Your task to perform on an android device: Search for the best lawnmowers on Lowes.com Image 0: 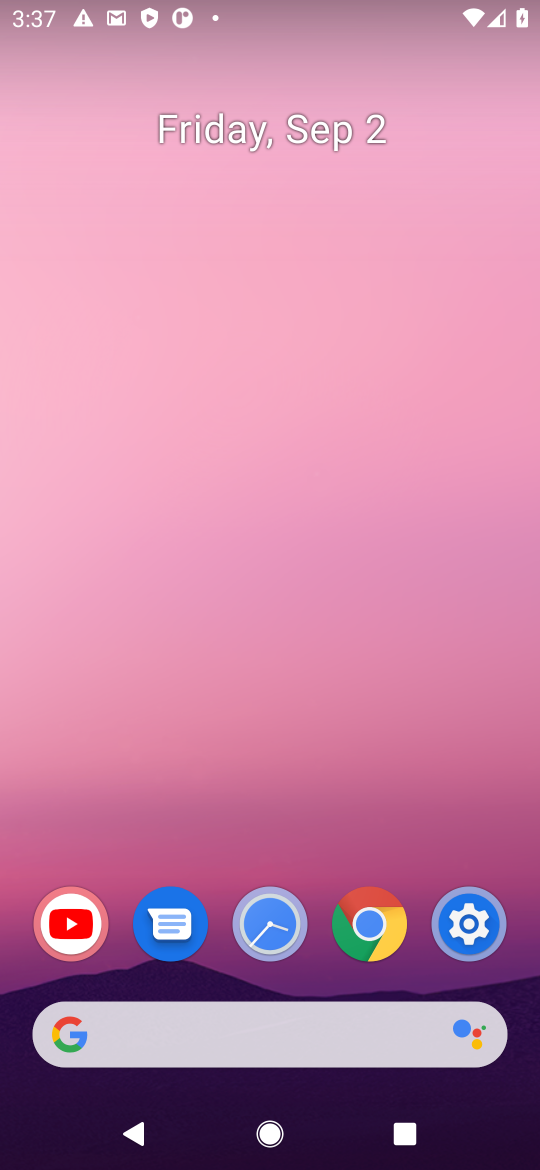
Step 0: press home button
Your task to perform on an android device: Search for the best lawnmowers on Lowes.com Image 1: 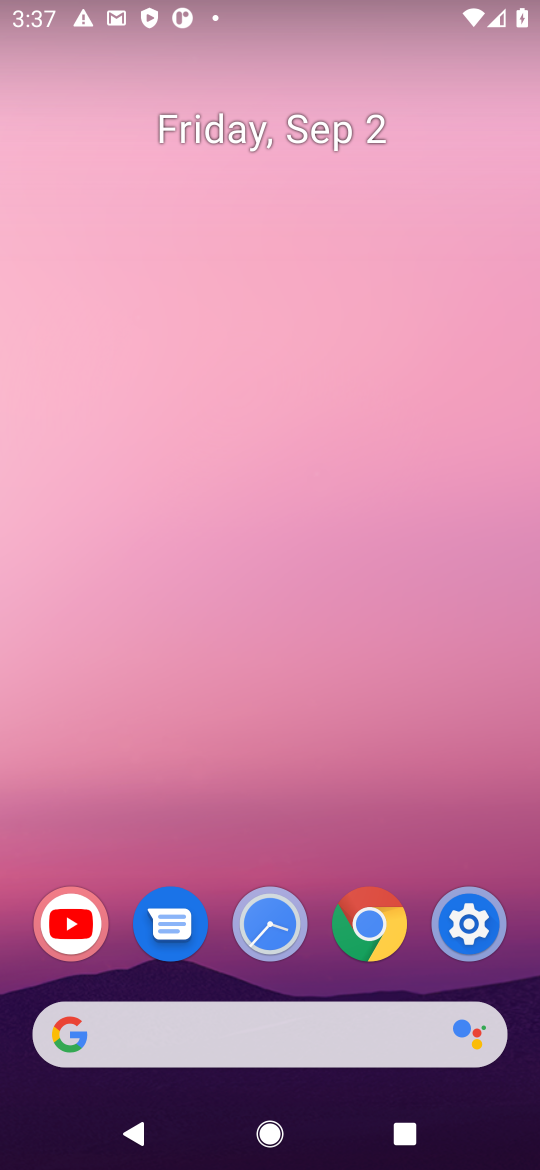
Step 1: click (399, 1020)
Your task to perform on an android device: Search for the best lawnmowers on Lowes.com Image 2: 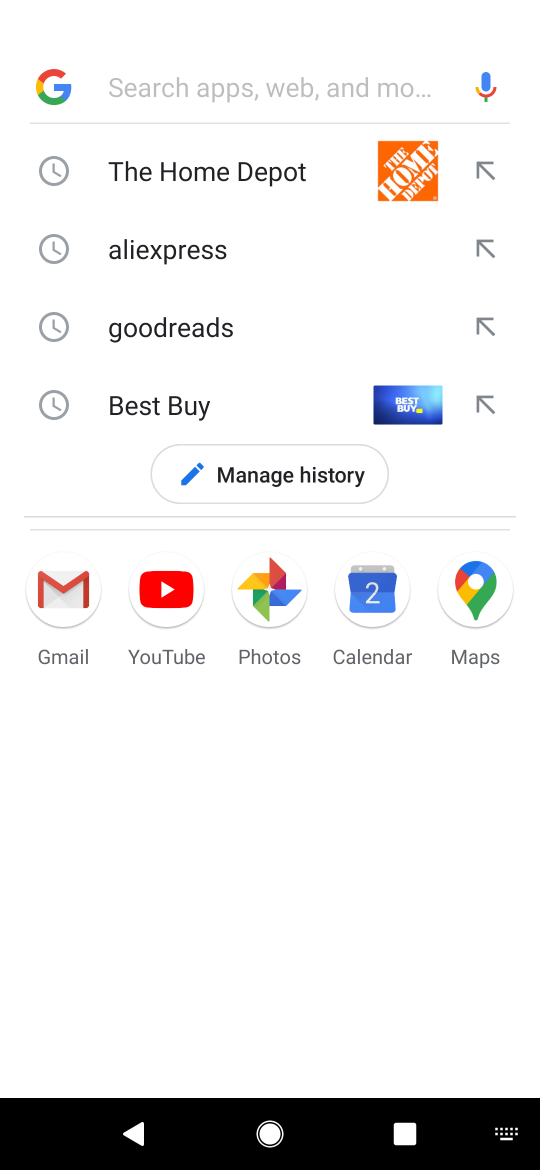
Step 2: press enter
Your task to perform on an android device: Search for the best lawnmowers on Lowes.com Image 3: 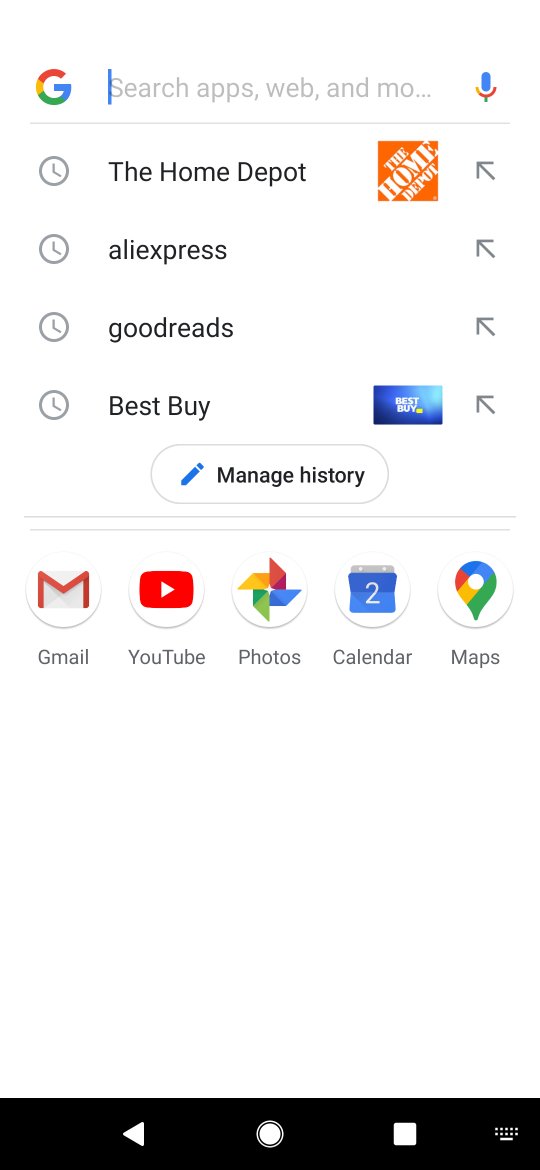
Step 3: type "lowes.com"
Your task to perform on an android device: Search for the best lawnmowers on Lowes.com Image 4: 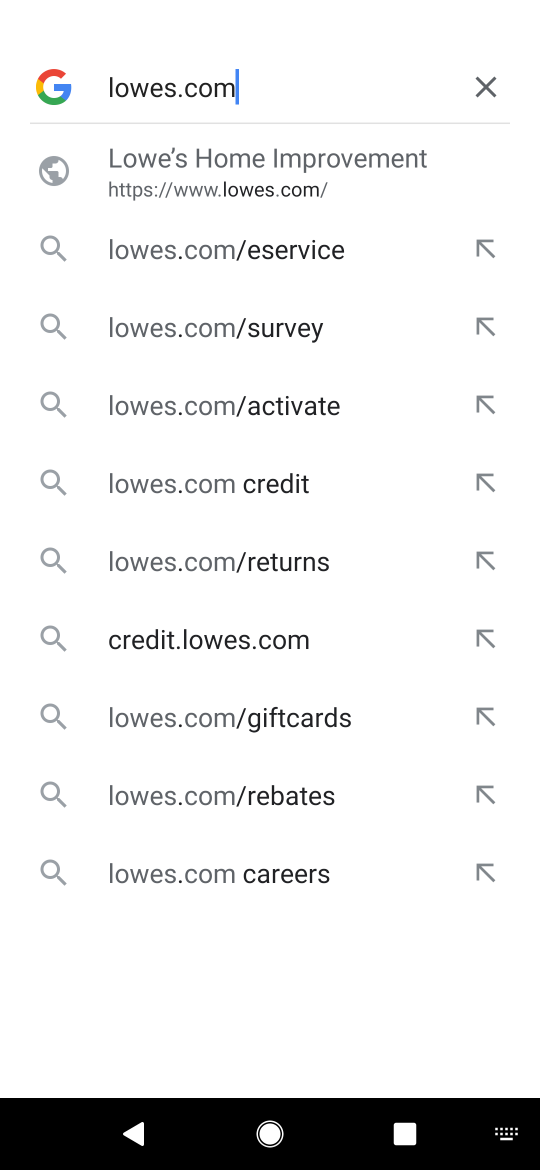
Step 4: click (283, 178)
Your task to perform on an android device: Search for the best lawnmowers on Lowes.com Image 5: 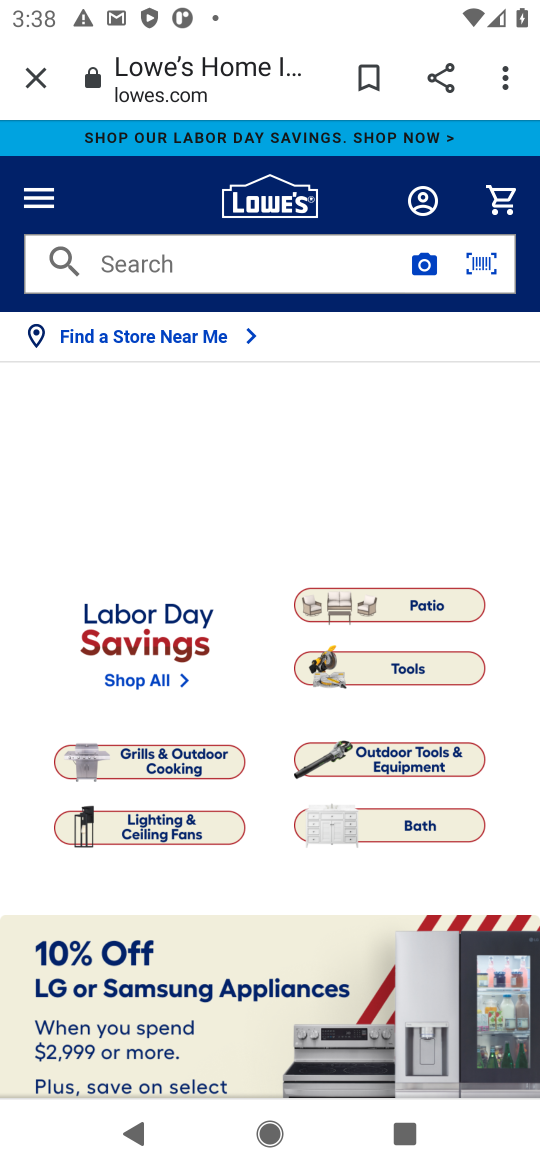
Step 5: click (229, 257)
Your task to perform on an android device: Search for the best lawnmowers on Lowes.com Image 6: 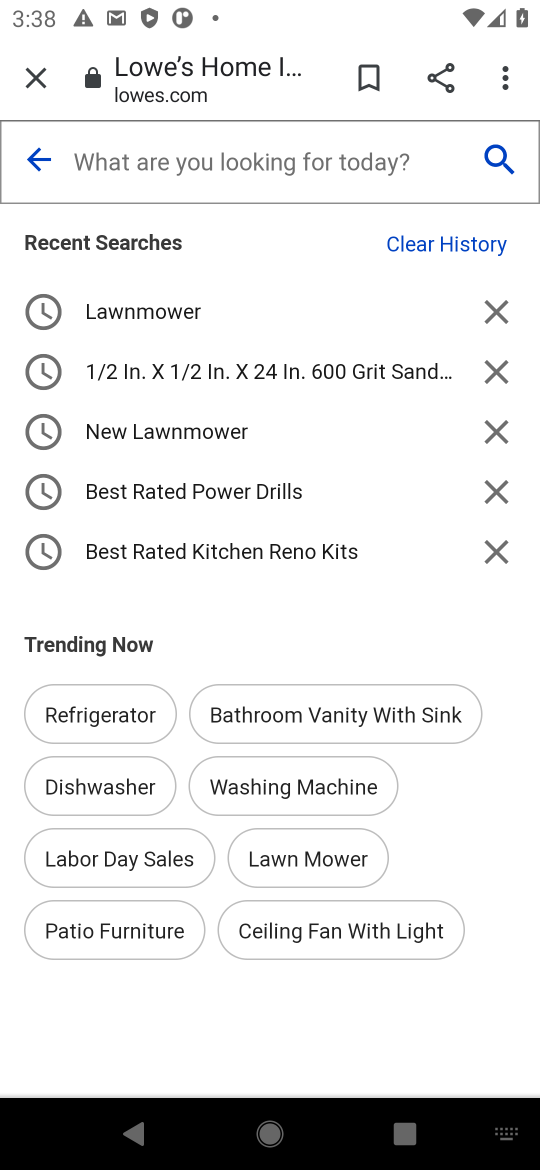
Step 6: click (141, 304)
Your task to perform on an android device: Search for the best lawnmowers on Lowes.com Image 7: 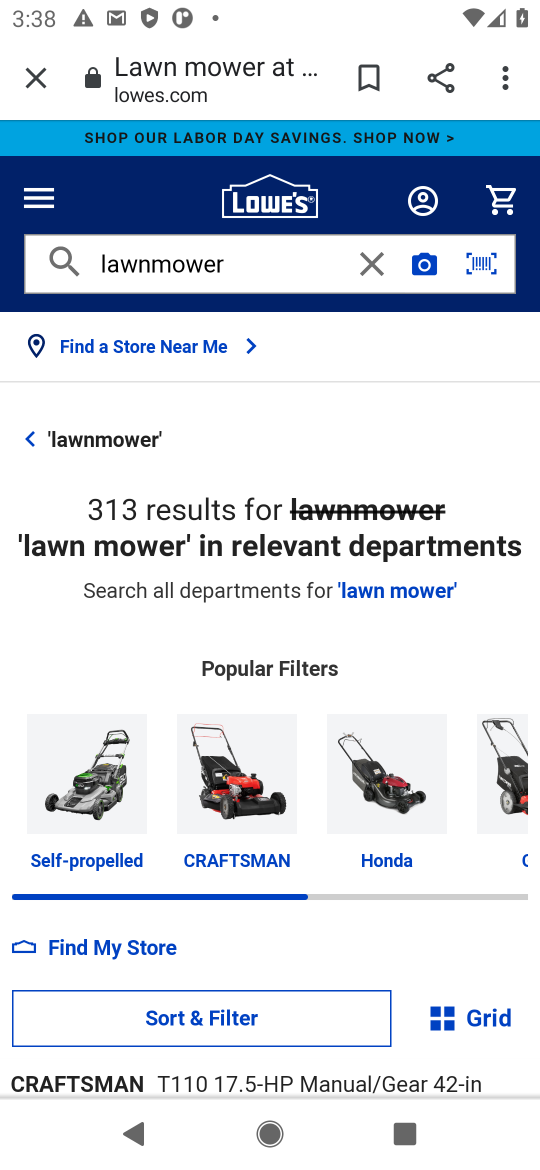
Step 7: task complete